Your task to perform on an android device: Open calendar and show me the first week of next month Image 0: 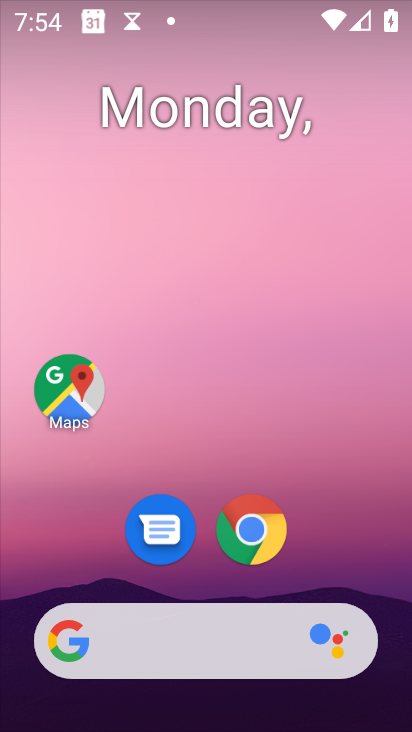
Step 0: drag from (165, 435) to (286, 199)
Your task to perform on an android device: Open calendar and show me the first week of next month Image 1: 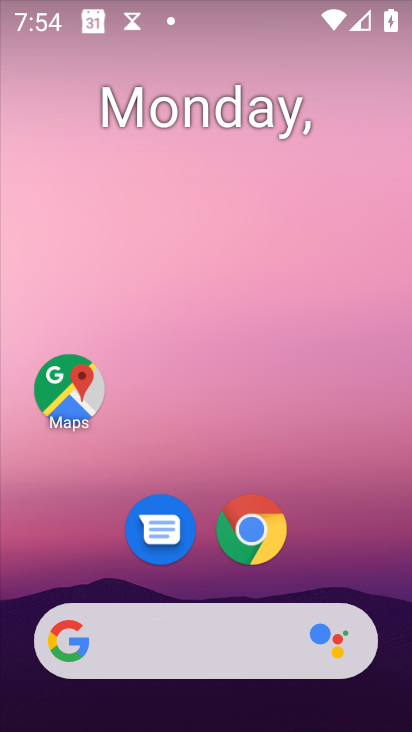
Step 1: drag from (17, 562) to (279, 115)
Your task to perform on an android device: Open calendar and show me the first week of next month Image 2: 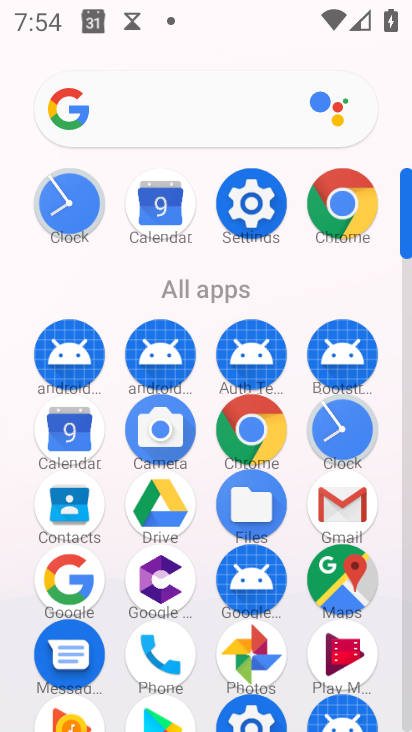
Step 2: click (61, 437)
Your task to perform on an android device: Open calendar and show me the first week of next month Image 3: 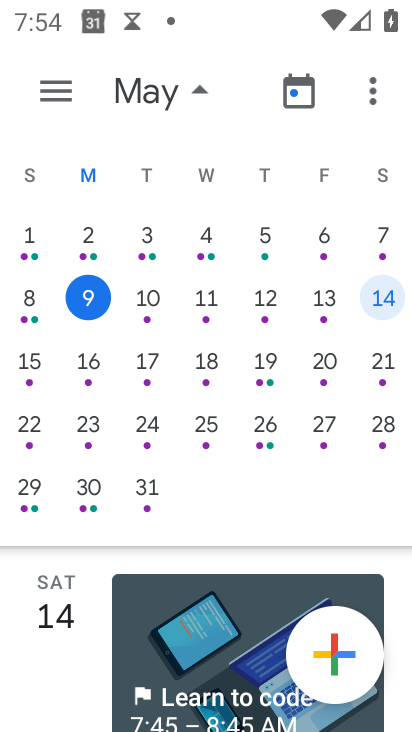
Step 3: drag from (373, 345) to (8, 299)
Your task to perform on an android device: Open calendar and show me the first week of next month Image 4: 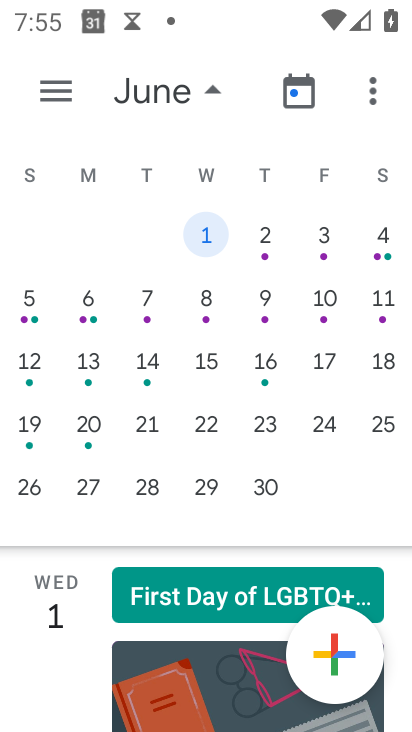
Step 4: click (254, 238)
Your task to perform on an android device: Open calendar and show me the first week of next month Image 5: 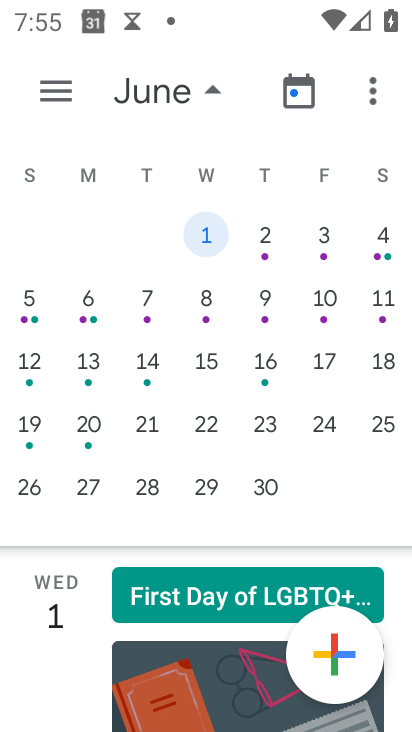
Step 5: click (266, 233)
Your task to perform on an android device: Open calendar and show me the first week of next month Image 6: 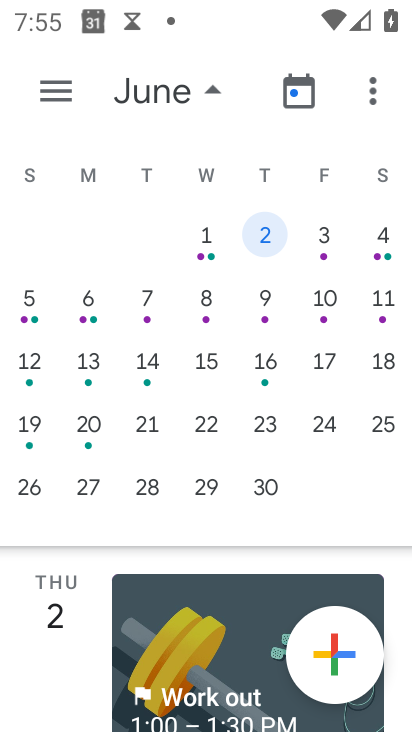
Step 6: click (341, 238)
Your task to perform on an android device: Open calendar and show me the first week of next month Image 7: 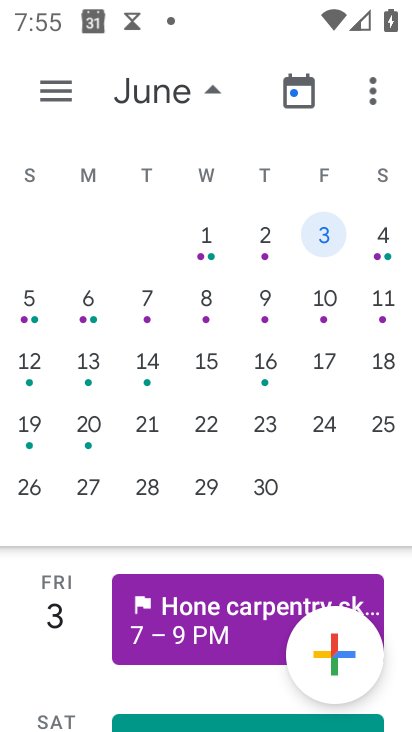
Step 7: click (396, 237)
Your task to perform on an android device: Open calendar and show me the first week of next month Image 8: 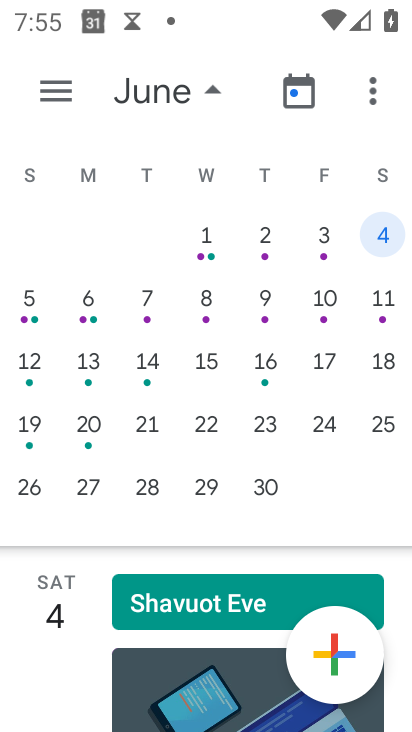
Step 8: task complete